Your task to perform on an android device: turn off sleep mode Image 0: 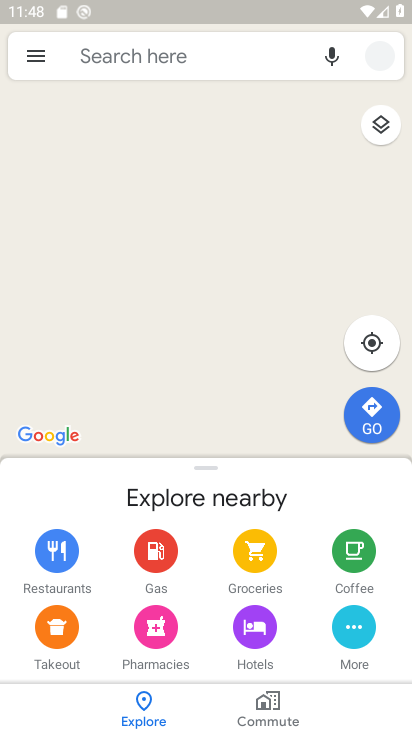
Step 0: click (270, 283)
Your task to perform on an android device: turn off sleep mode Image 1: 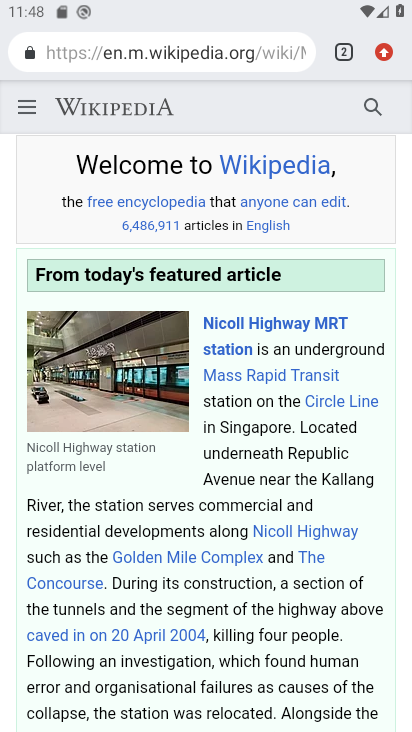
Step 1: press home button
Your task to perform on an android device: turn off sleep mode Image 2: 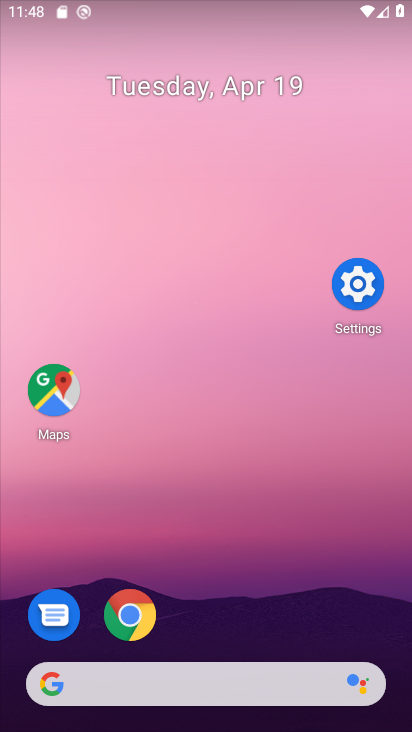
Step 2: drag from (188, 611) to (344, 20)
Your task to perform on an android device: turn off sleep mode Image 3: 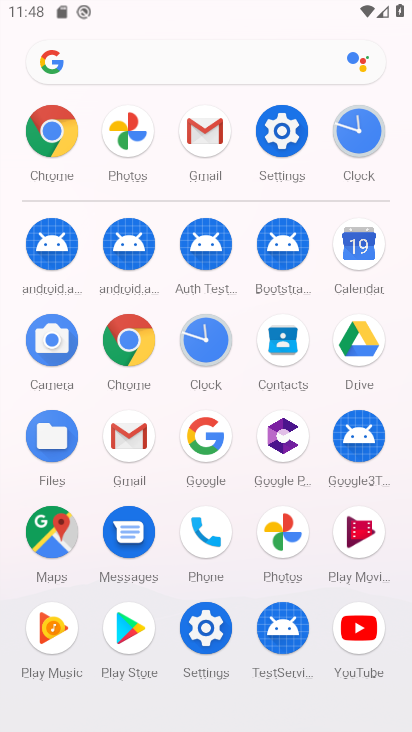
Step 3: click (281, 123)
Your task to perform on an android device: turn off sleep mode Image 4: 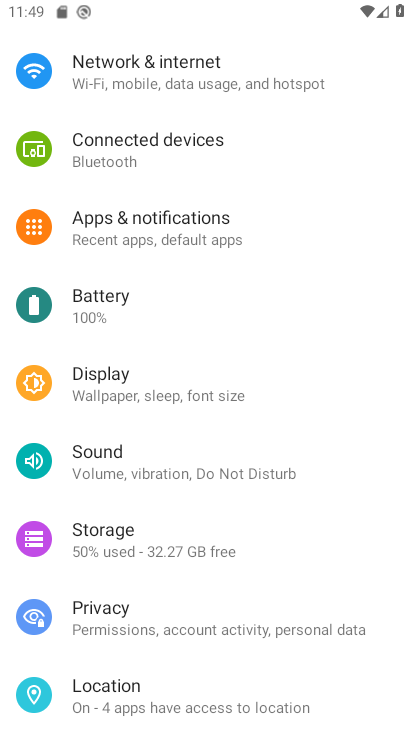
Step 4: click (156, 388)
Your task to perform on an android device: turn off sleep mode Image 5: 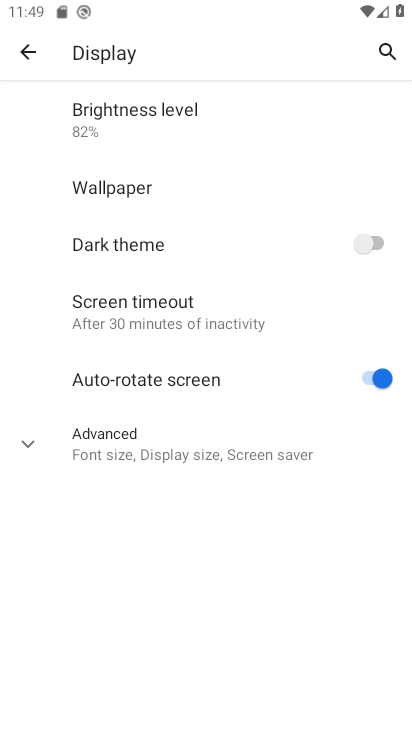
Step 5: click (186, 303)
Your task to perform on an android device: turn off sleep mode Image 6: 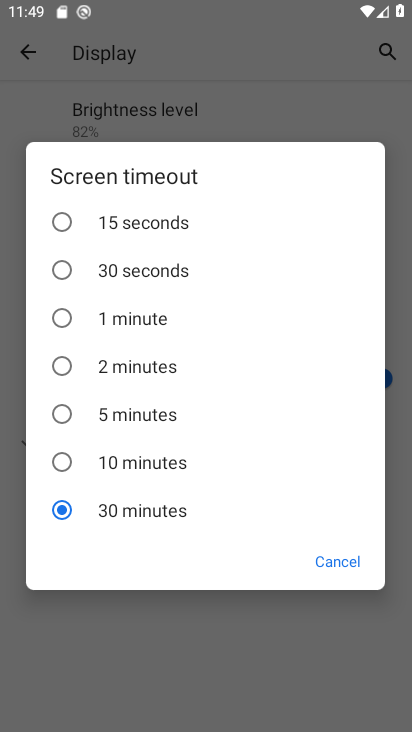
Step 6: click (79, 369)
Your task to perform on an android device: turn off sleep mode Image 7: 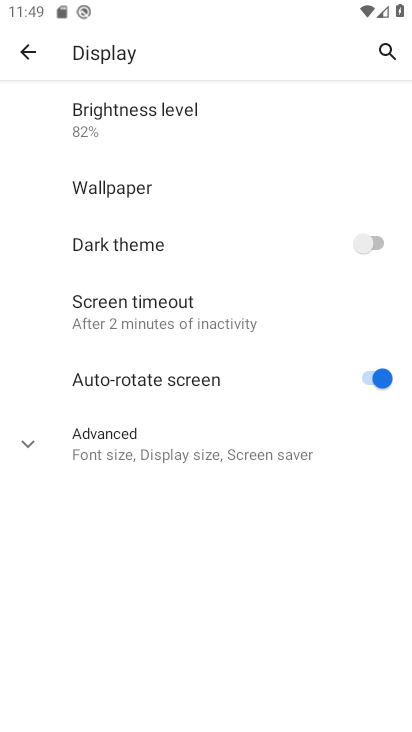
Step 7: task complete